Your task to perform on an android device: Open calendar and show me the first week of next month Image 0: 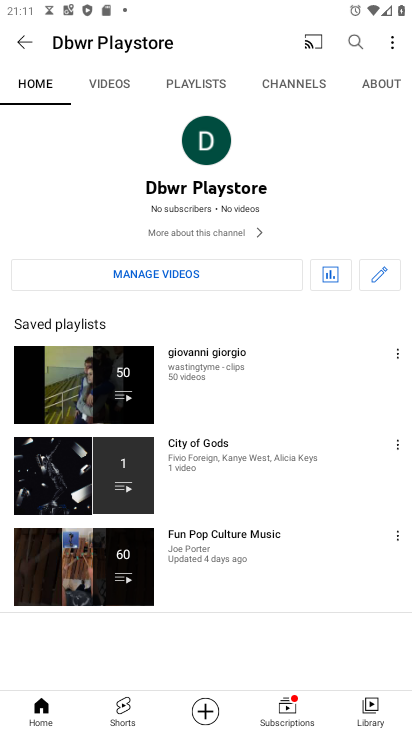
Step 0: press home button
Your task to perform on an android device: Open calendar and show me the first week of next month Image 1: 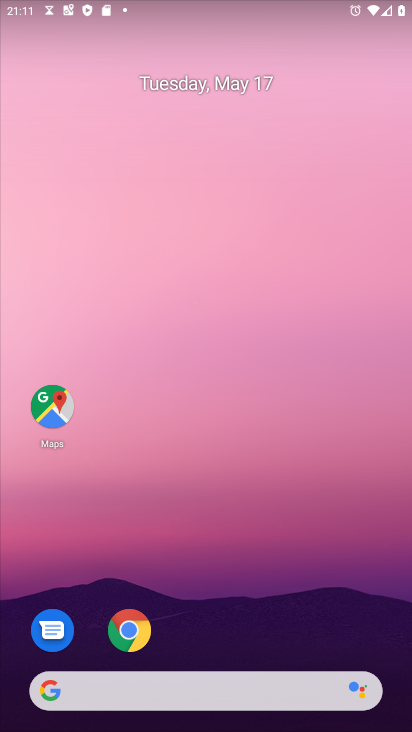
Step 1: drag from (164, 447) to (161, 116)
Your task to perform on an android device: Open calendar and show me the first week of next month Image 2: 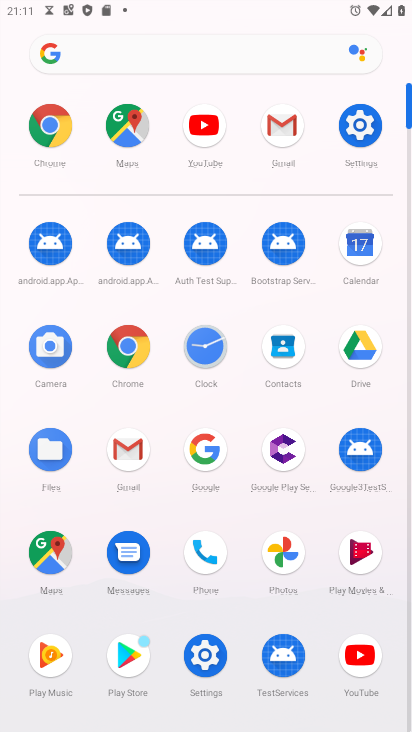
Step 2: click (380, 246)
Your task to perform on an android device: Open calendar and show me the first week of next month Image 3: 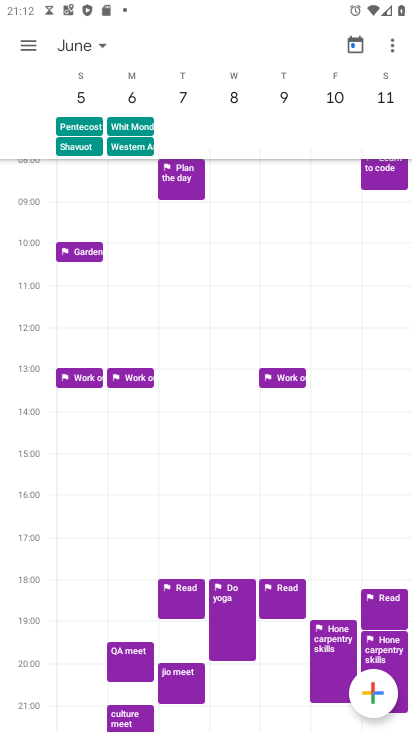
Step 3: task complete